Your task to perform on an android device: Go to Android settings Image 0: 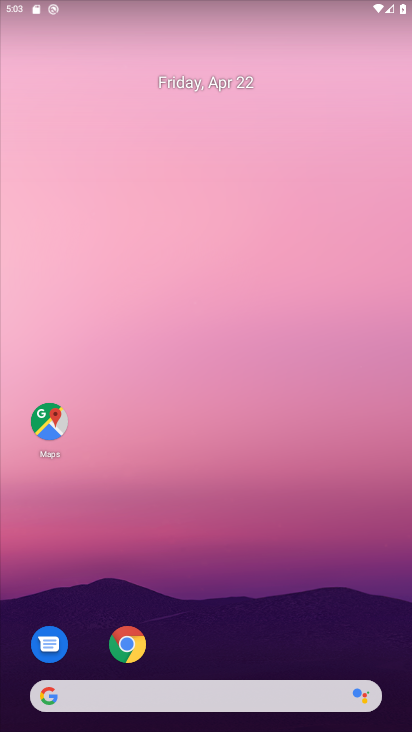
Step 0: drag from (225, 635) to (331, 14)
Your task to perform on an android device: Go to Android settings Image 1: 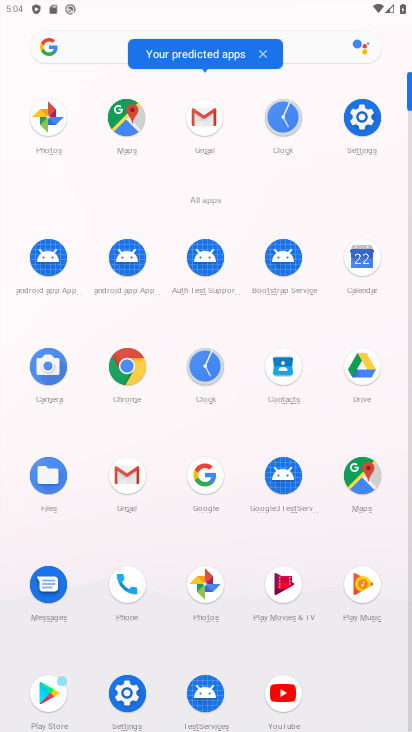
Step 1: click (127, 699)
Your task to perform on an android device: Go to Android settings Image 2: 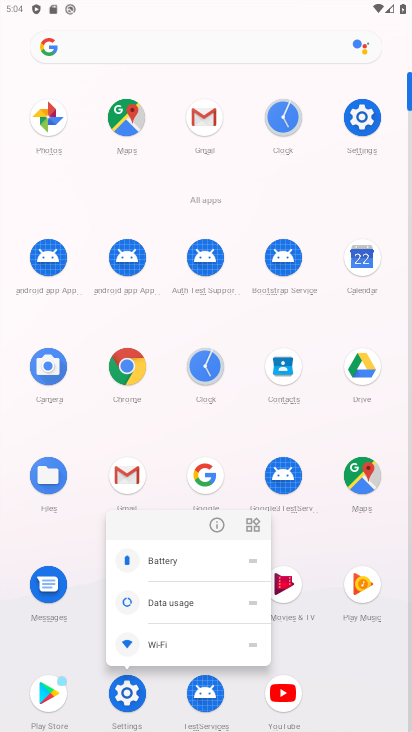
Step 2: click (131, 680)
Your task to perform on an android device: Go to Android settings Image 3: 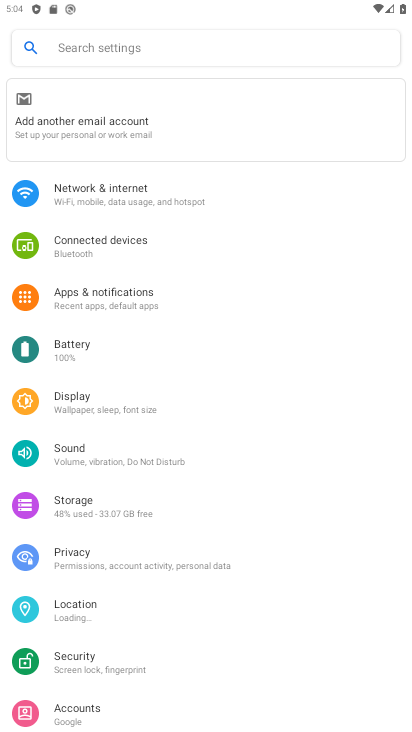
Step 3: drag from (98, 612) to (191, 193)
Your task to perform on an android device: Go to Android settings Image 4: 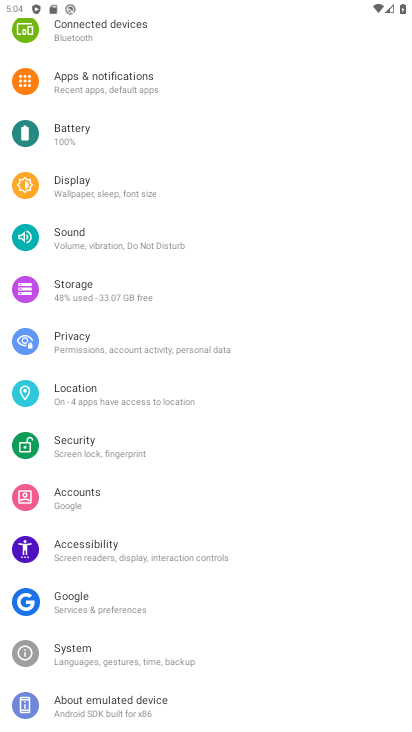
Step 4: click (89, 705)
Your task to perform on an android device: Go to Android settings Image 5: 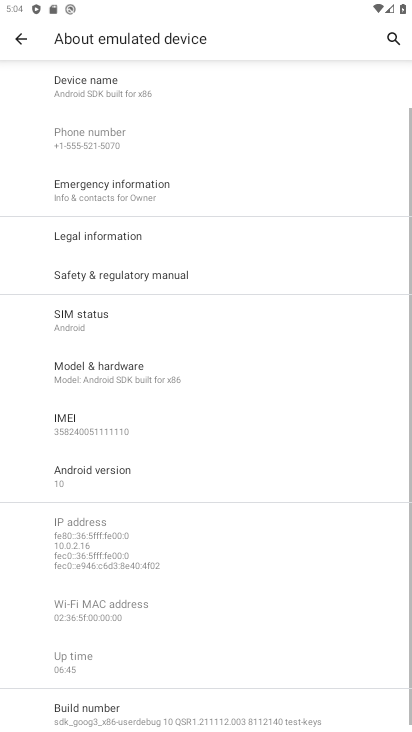
Step 5: click (121, 485)
Your task to perform on an android device: Go to Android settings Image 6: 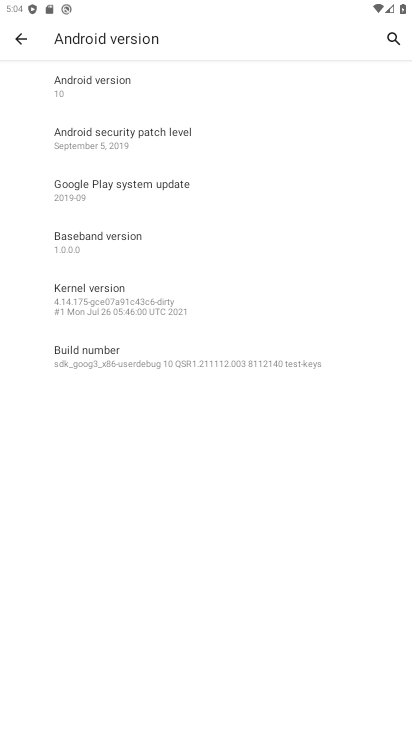
Step 6: task complete